Your task to perform on an android device: Open Google Chrome and click the shortcut for Amazon.com Image 0: 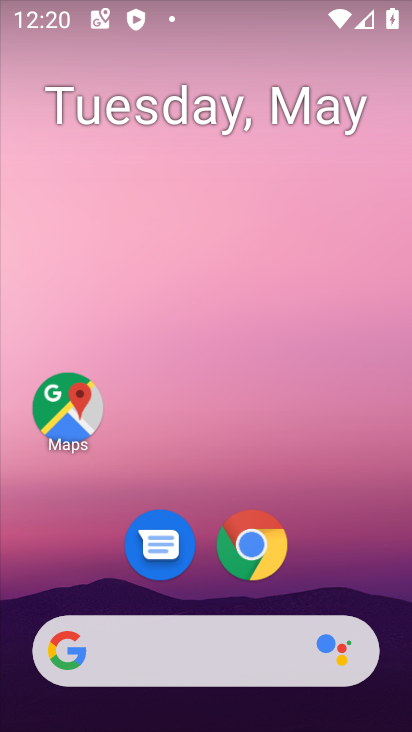
Step 0: click (257, 552)
Your task to perform on an android device: Open Google Chrome and click the shortcut for Amazon.com Image 1: 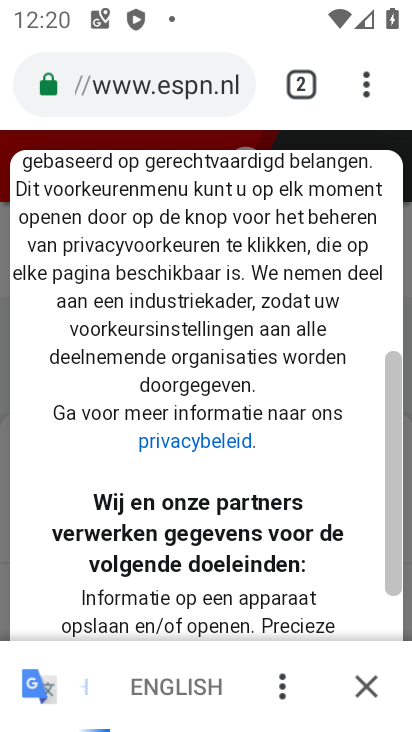
Step 1: click (288, 86)
Your task to perform on an android device: Open Google Chrome and click the shortcut for Amazon.com Image 2: 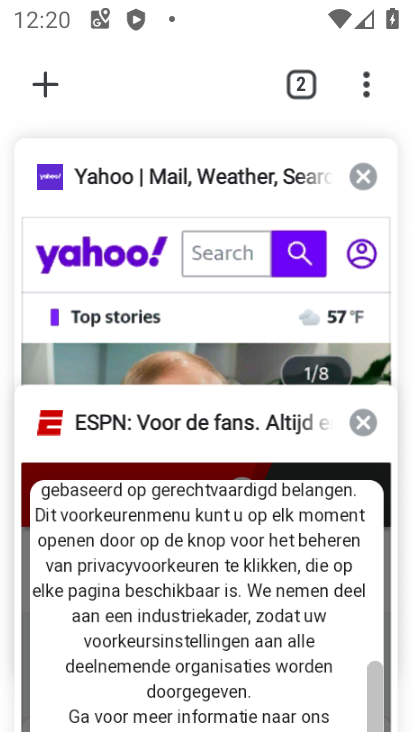
Step 2: click (43, 98)
Your task to perform on an android device: Open Google Chrome and click the shortcut for Amazon.com Image 3: 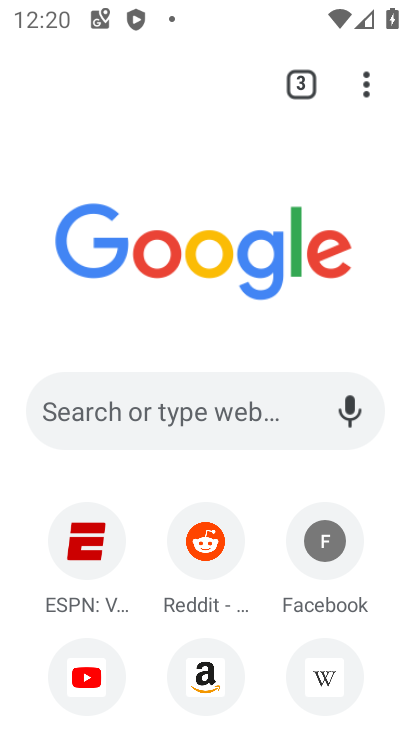
Step 3: click (193, 673)
Your task to perform on an android device: Open Google Chrome and click the shortcut for Amazon.com Image 4: 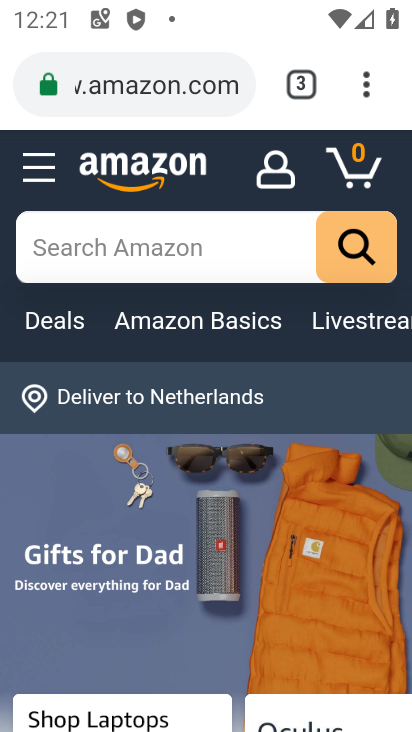
Step 4: task complete